Your task to perform on an android device: clear history in the chrome app Image 0: 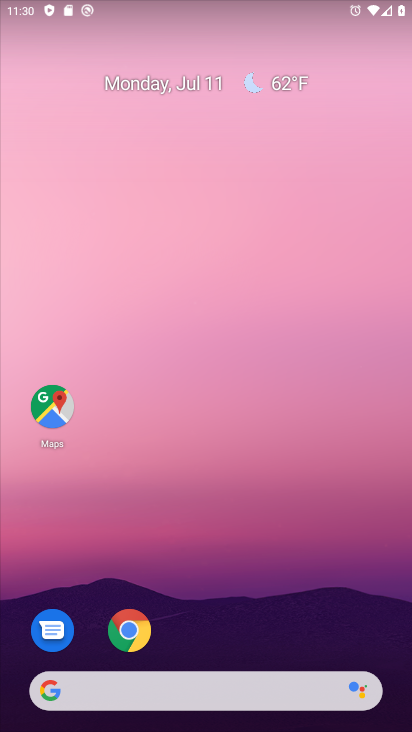
Step 0: click (136, 631)
Your task to perform on an android device: clear history in the chrome app Image 1: 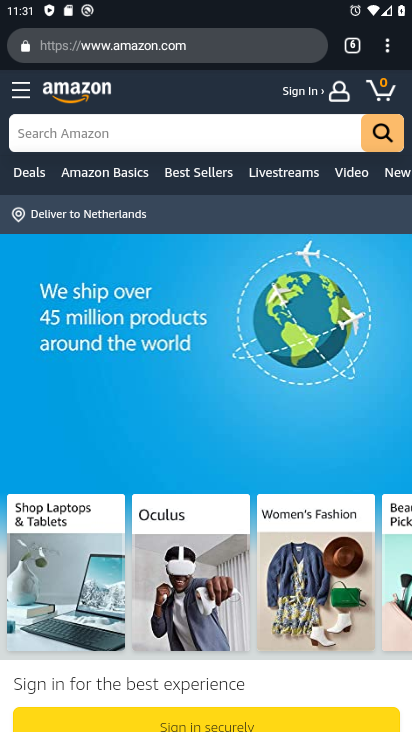
Step 1: click (386, 38)
Your task to perform on an android device: clear history in the chrome app Image 2: 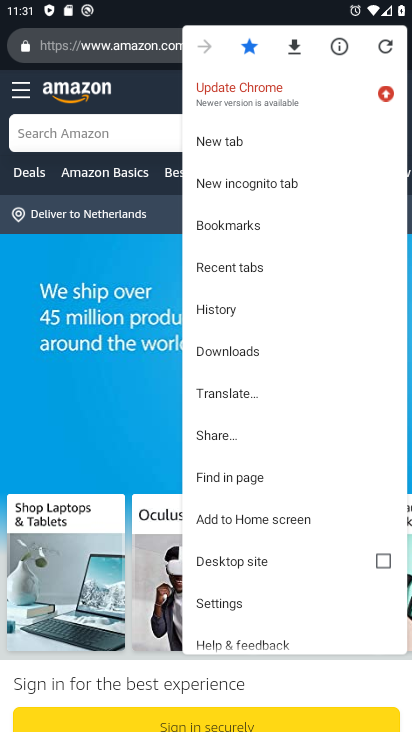
Step 2: click (228, 309)
Your task to perform on an android device: clear history in the chrome app Image 3: 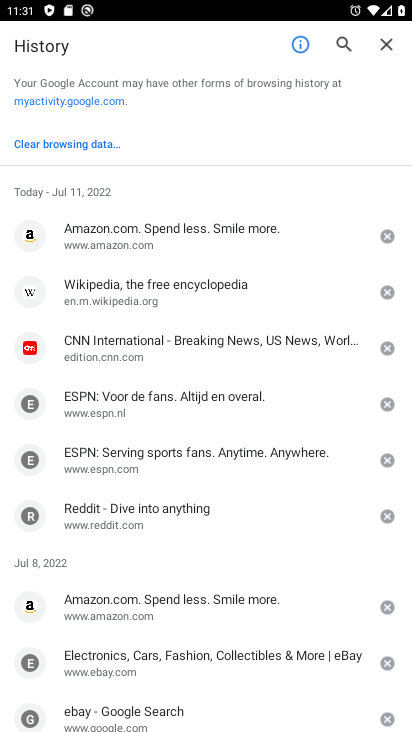
Step 3: click (89, 138)
Your task to perform on an android device: clear history in the chrome app Image 4: 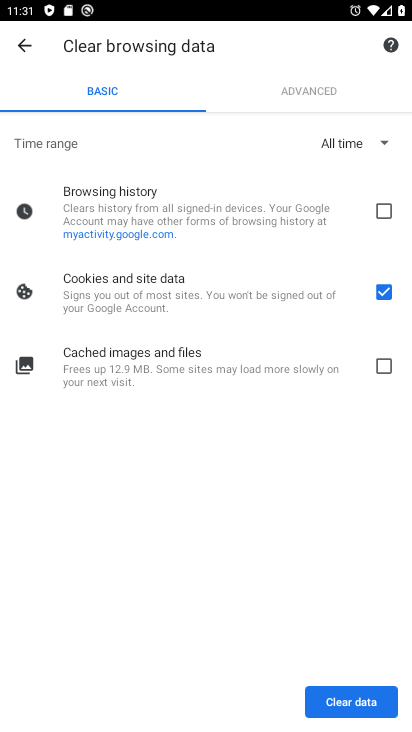
Step 4: click (381, 212)
Your task to perform on an android device: clear history in the chrome app Image 5: 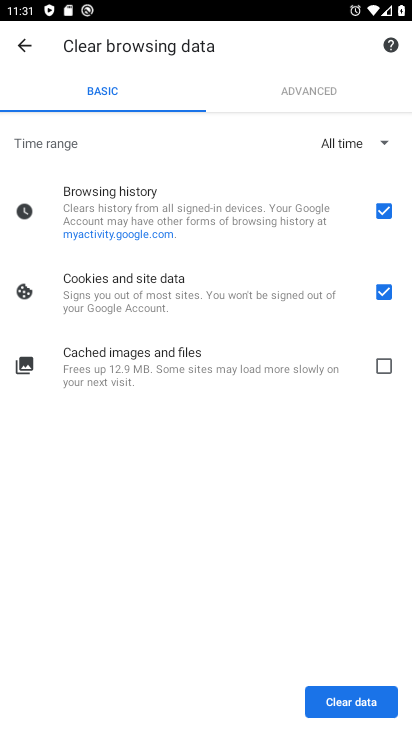
Step 5: click (386, 371)
Your task to perform on an android device: clear history in the chrome app Image 6: 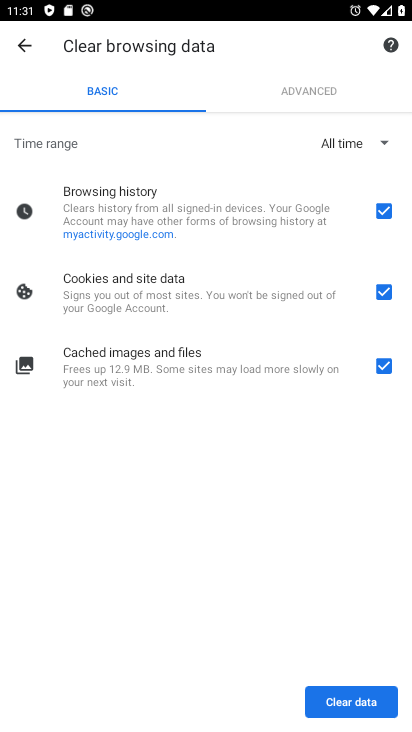
Step 6: click (375, 711)
Your task to perform on an android device: clear history in the chrome app Image 7: 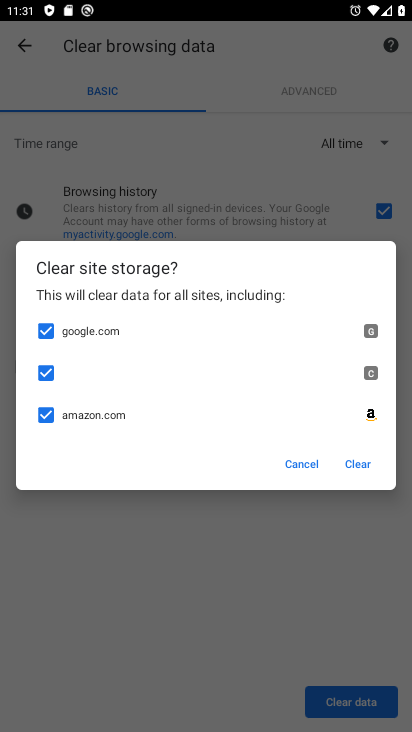
Step 7: click (362, 461)
Your task to perform on an android device: clear history in the chrome app Image 8: 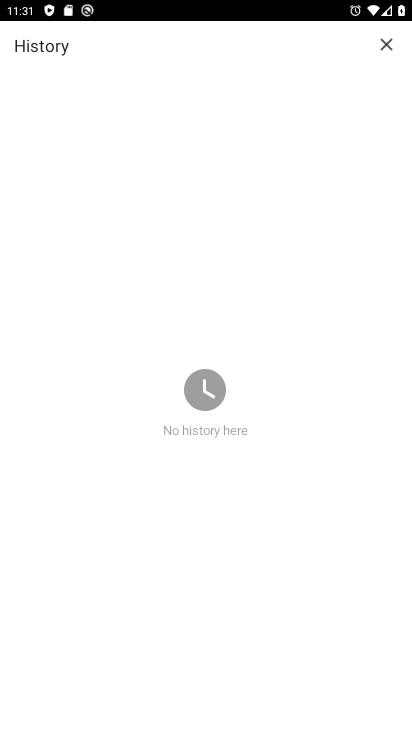
Step 8: task complete